Your task to perform on an android device: turn on improve location accuracy Image 0: 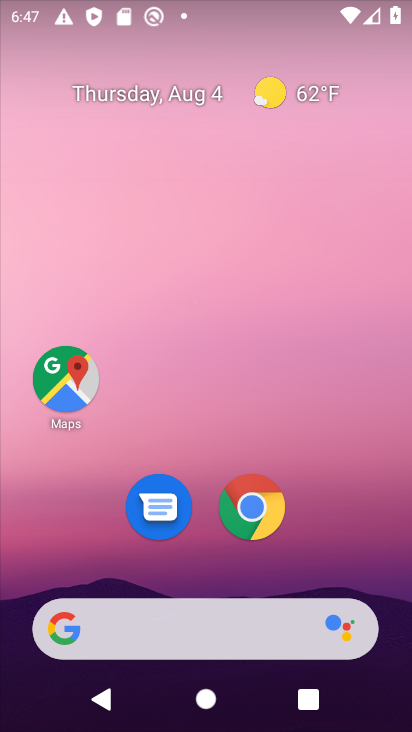
Step 0: drag from (388, 603) to (271, 21)
Your task to perform on an android device: turn on improve location accuracy Image 1: 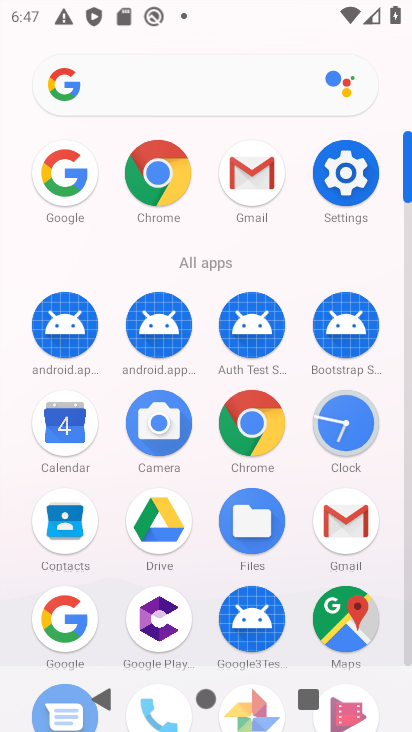
Step 1: click (350, 200)
Your task to perform on an android device: turn on improve location accuracy Image 2: 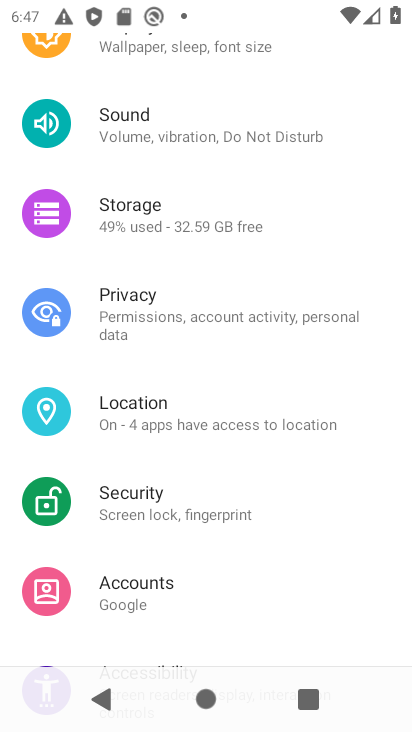
Step 2: click (187, 419)
Your task to perform on an android device: turn on improve location accuracy Image 3: 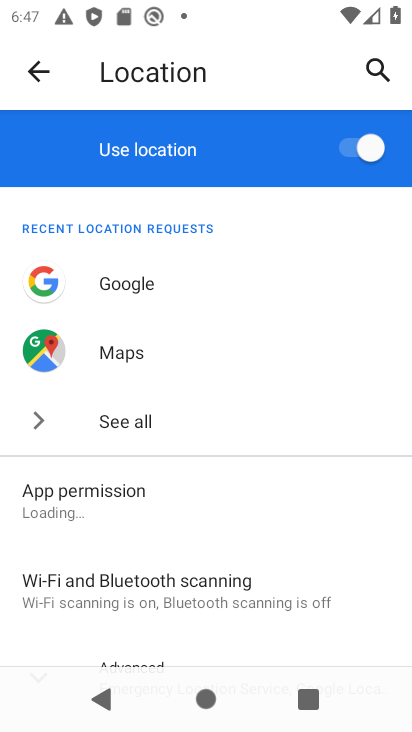
Step 3: drag from (82, 576) to (142, 133)
Your task to perform on an android device: turn on improve location accuracy Image 4: 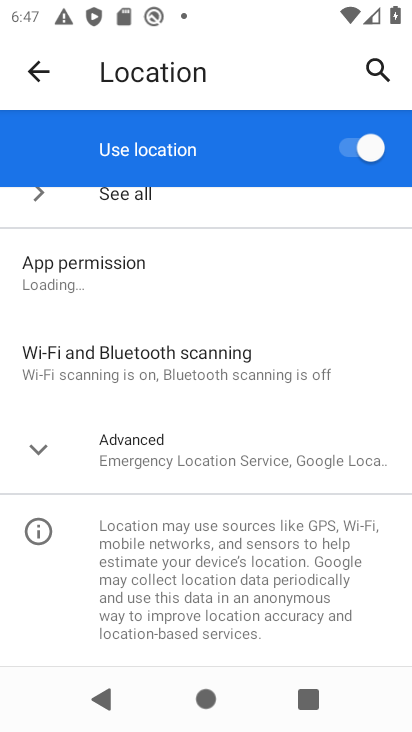
Step 4: click (123, 441)
Your task to perform on an android device: turn on improve location accuracy Image 5: 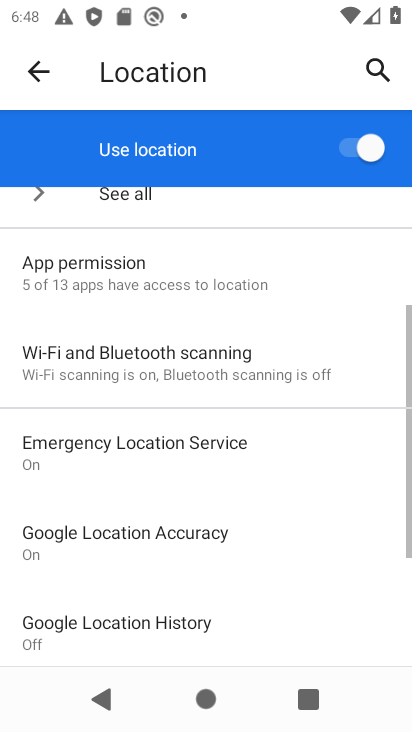
Step 5: click (169, 540)
Your task to perform on an android device: turn on improve location accuracy Image 6: 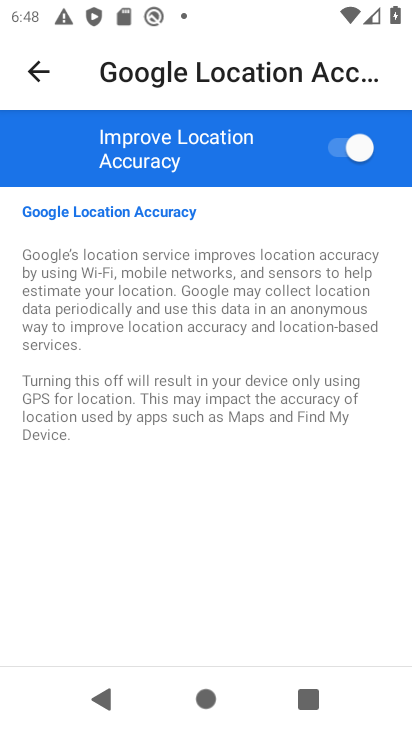
Step 6: task complete